Your task to perform on an android device: Open the phone app and click the voicemail tab. Image 0: 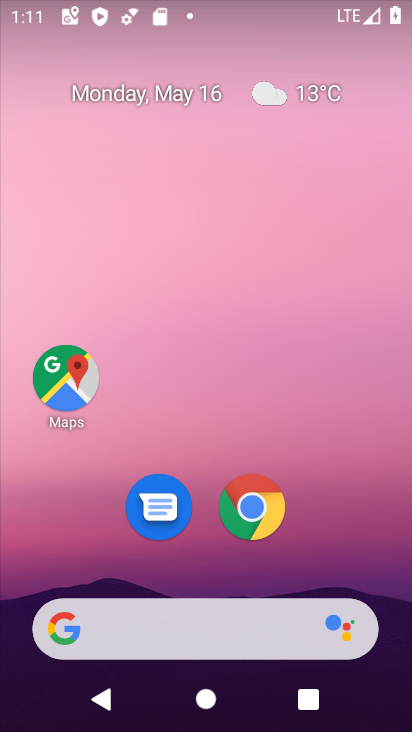
Step 0: drag from (288, 549) to (241, 27)
Your task to perform on an android device: Open the phone app and click the voicemail tab. Image 1: 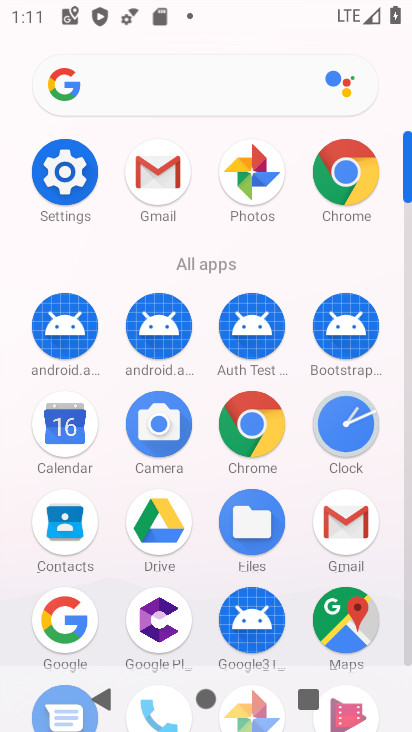
Step 1: drag from (207, 603) to (185, 291)
Your task to perform on an android device: Open the phone app and click the voicemail tab. Image 2: 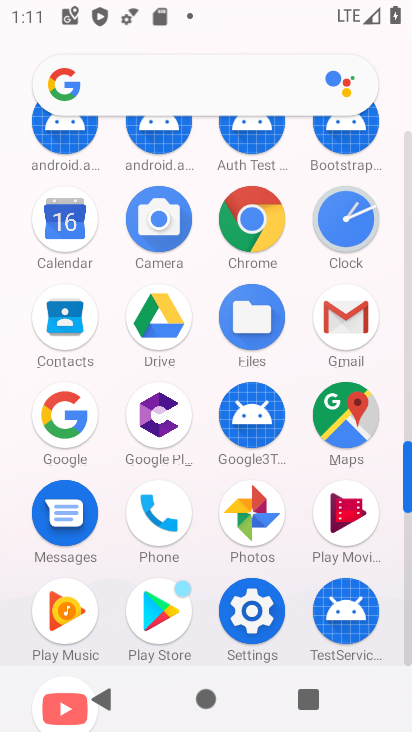
Step 2: click (155, 526)
Your task to perform on an android device: Open the phone app and click the voicemail tab. Image 3: 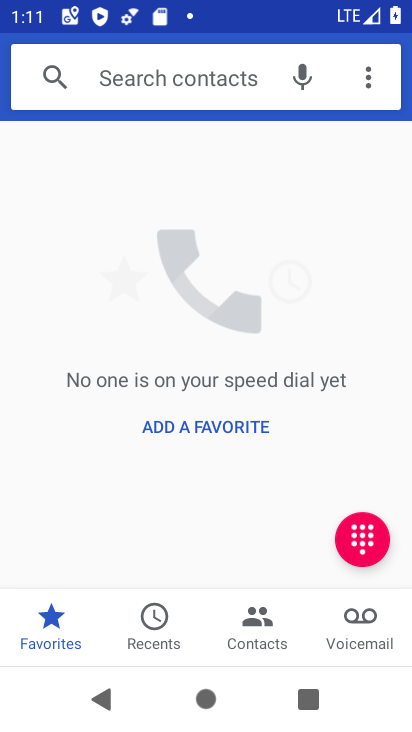
Step 3: click (367, 641)
Your task to perform on an android device: Open the phone app and click the voicemail tab. Image 4: 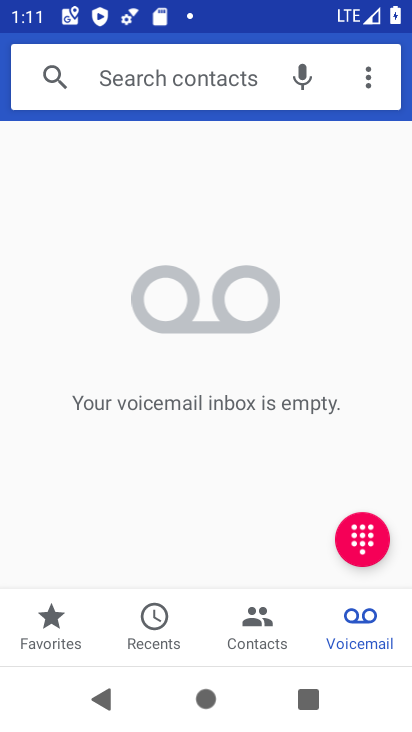
Step 4: task complete